Your task to perform on an android device: uninstall "Microsoft Excel" Image 0: 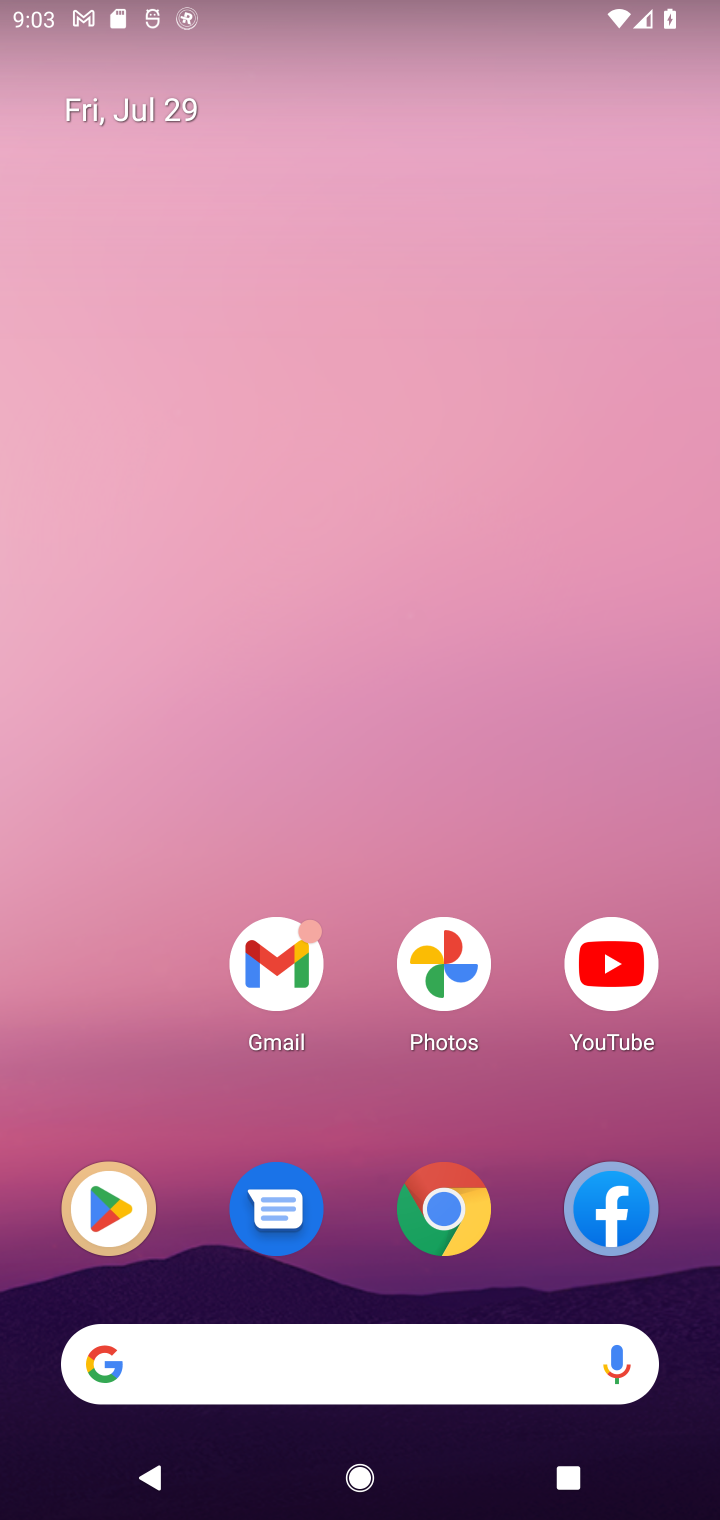
Step 0: drag from (334, 1335) to (380, 103)
Your task to perform on an android device: uninstall "Microsoft Excel" Image 1: 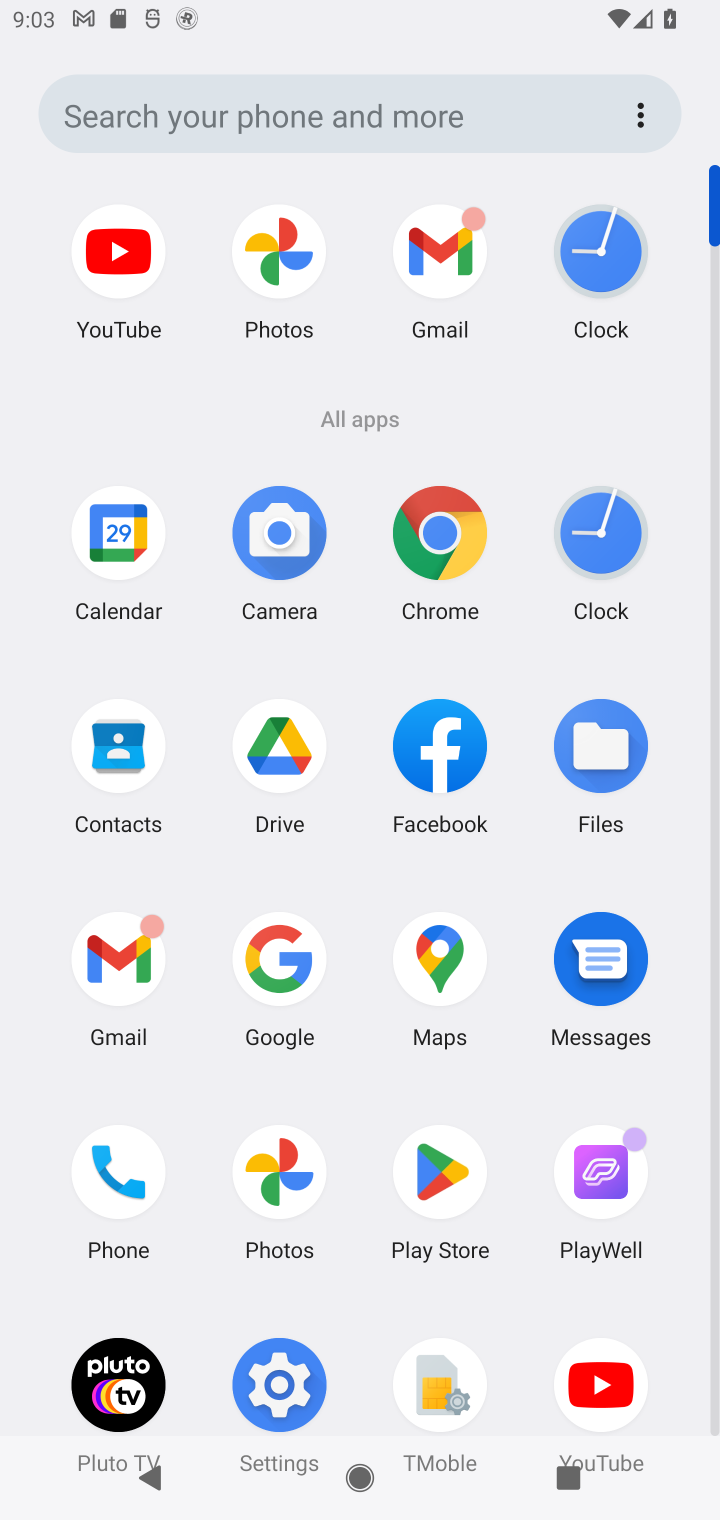
Step 1: click (440, 1172)
Your task to perform on an android device: uninstall "Microsoft Excel" Image 2: 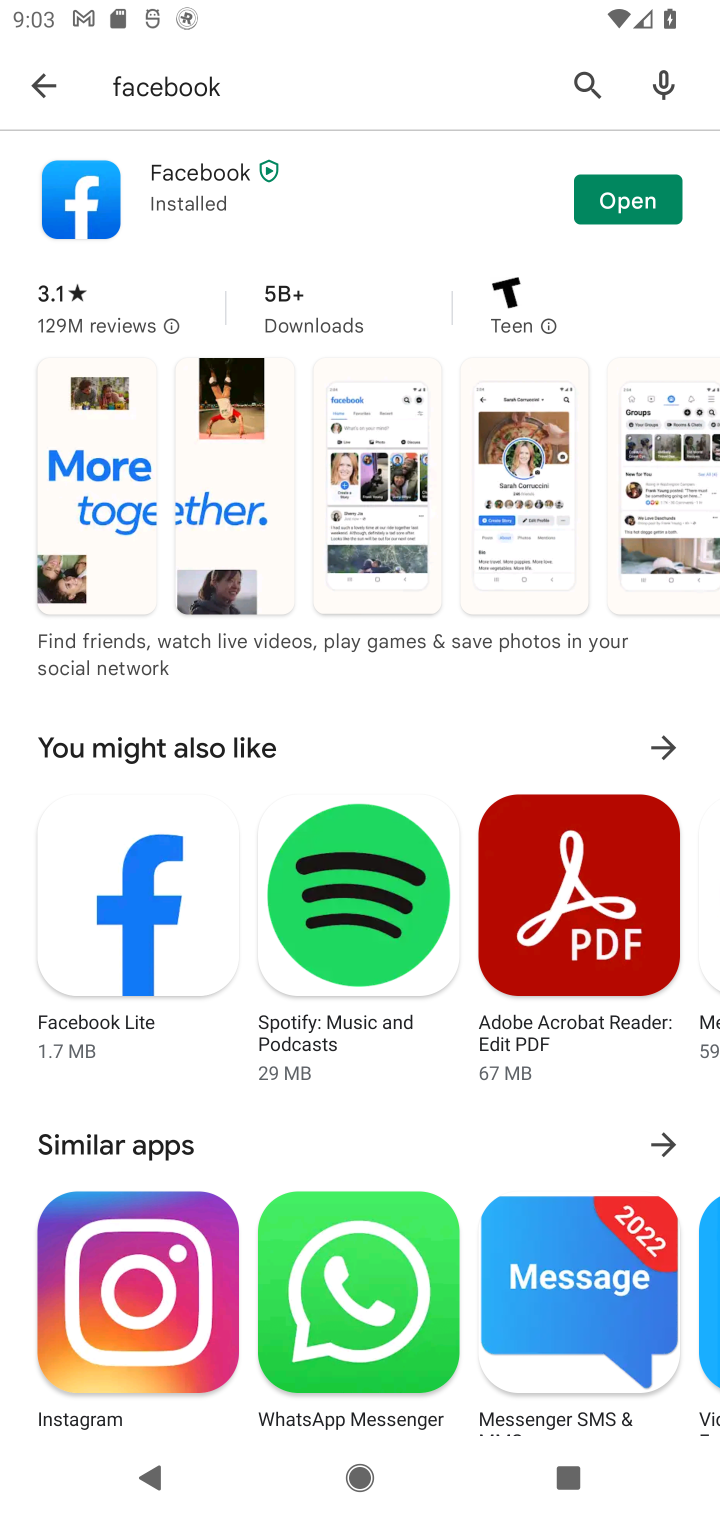
Step 2: click (583, 94)
Your task to perform on an android device: uninstall "Microsoft Excel" Image 3: 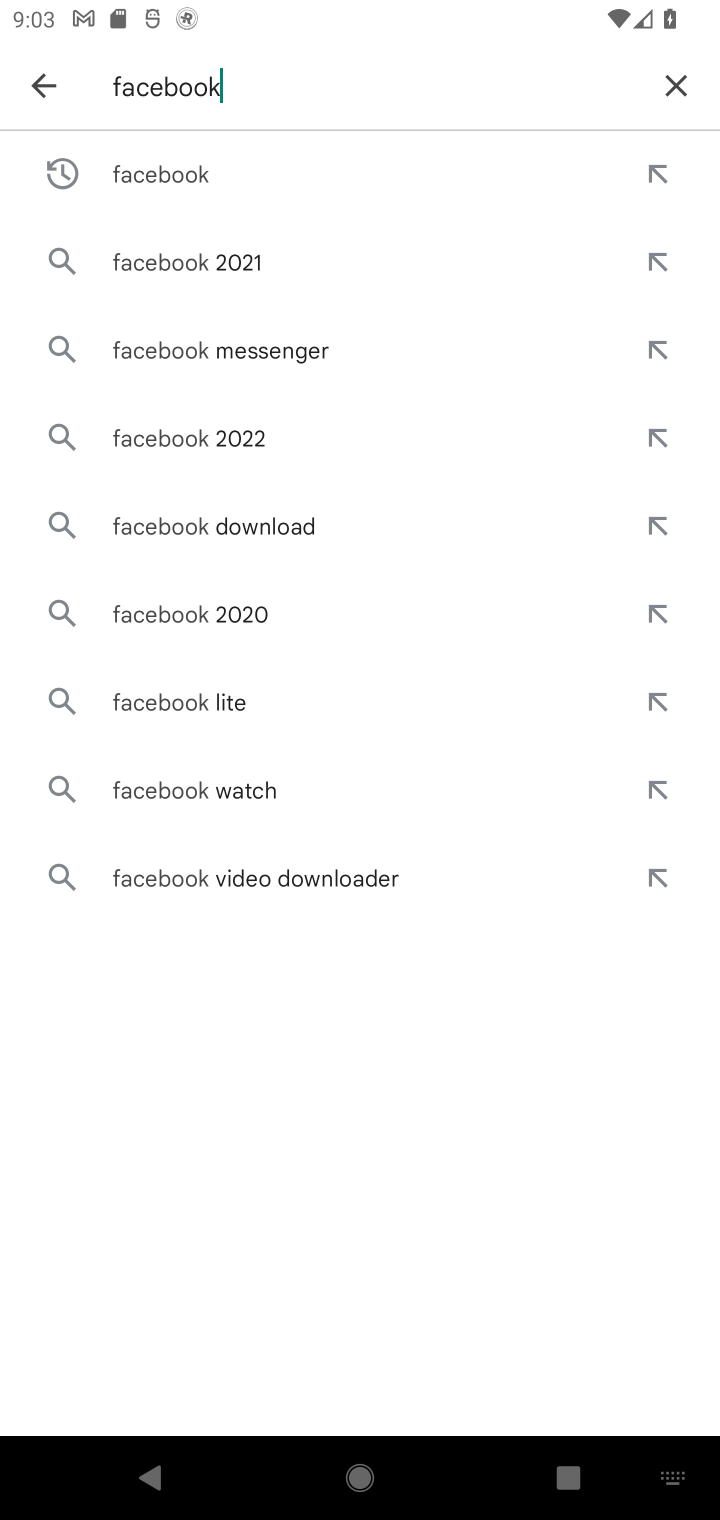
Step 3: click (672, 86)
Your task to perform on an android device: uninstall "Microsoft Excel" Image 4: 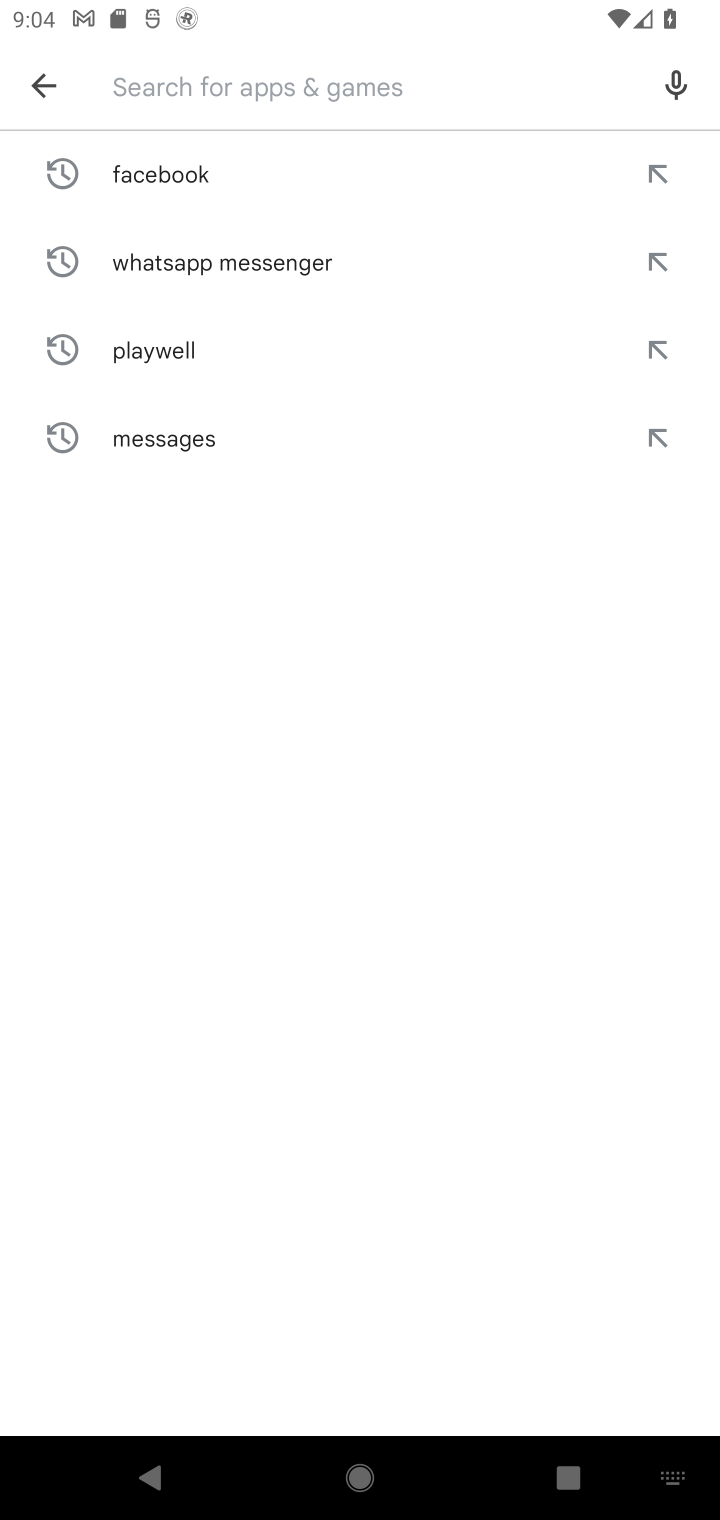
Step 4: type "Microsoft Excel"
Your task to perform on an android device: uninstall "Microsoft Excel" Image 5: 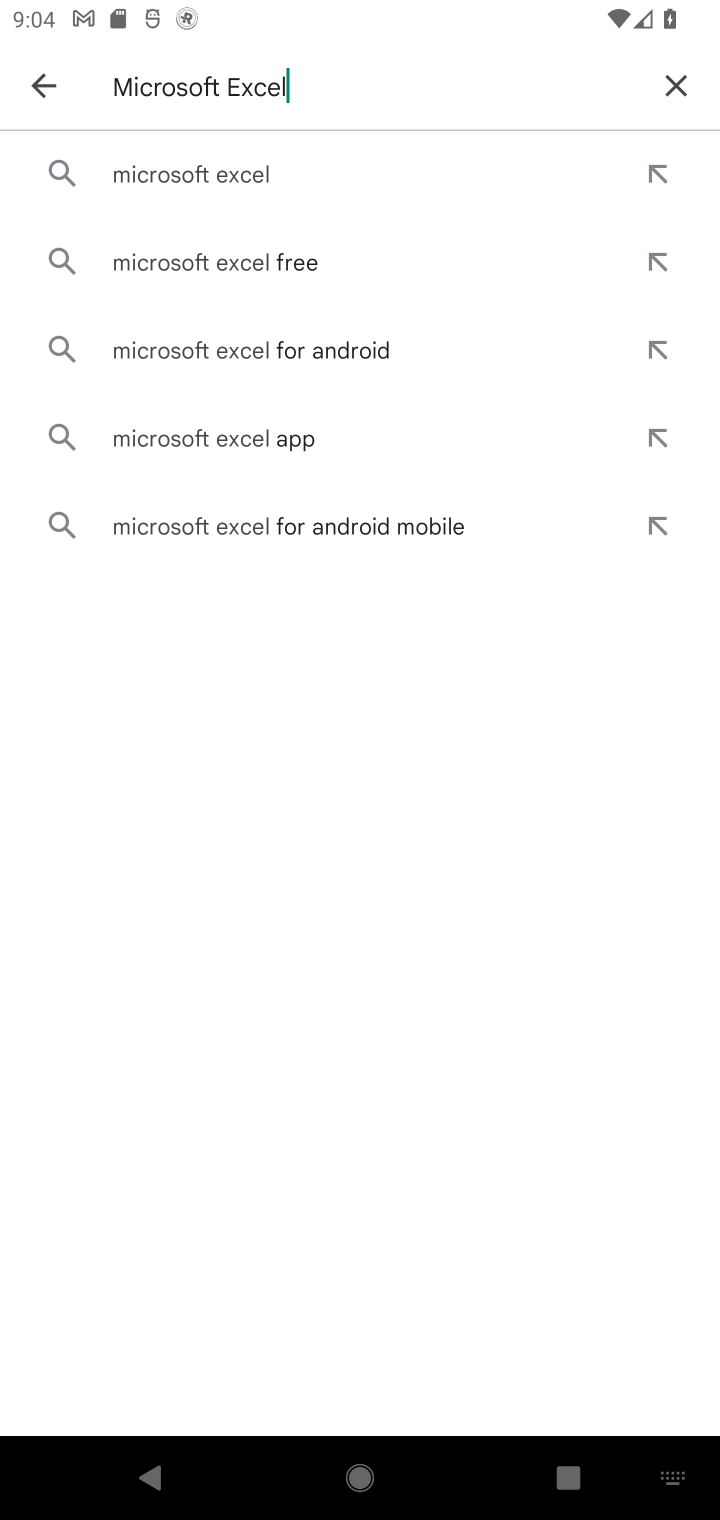
Step 5: click (202, 164)
Your task to perform on an android device: uninstall "Microsoft Excel" Image 6: 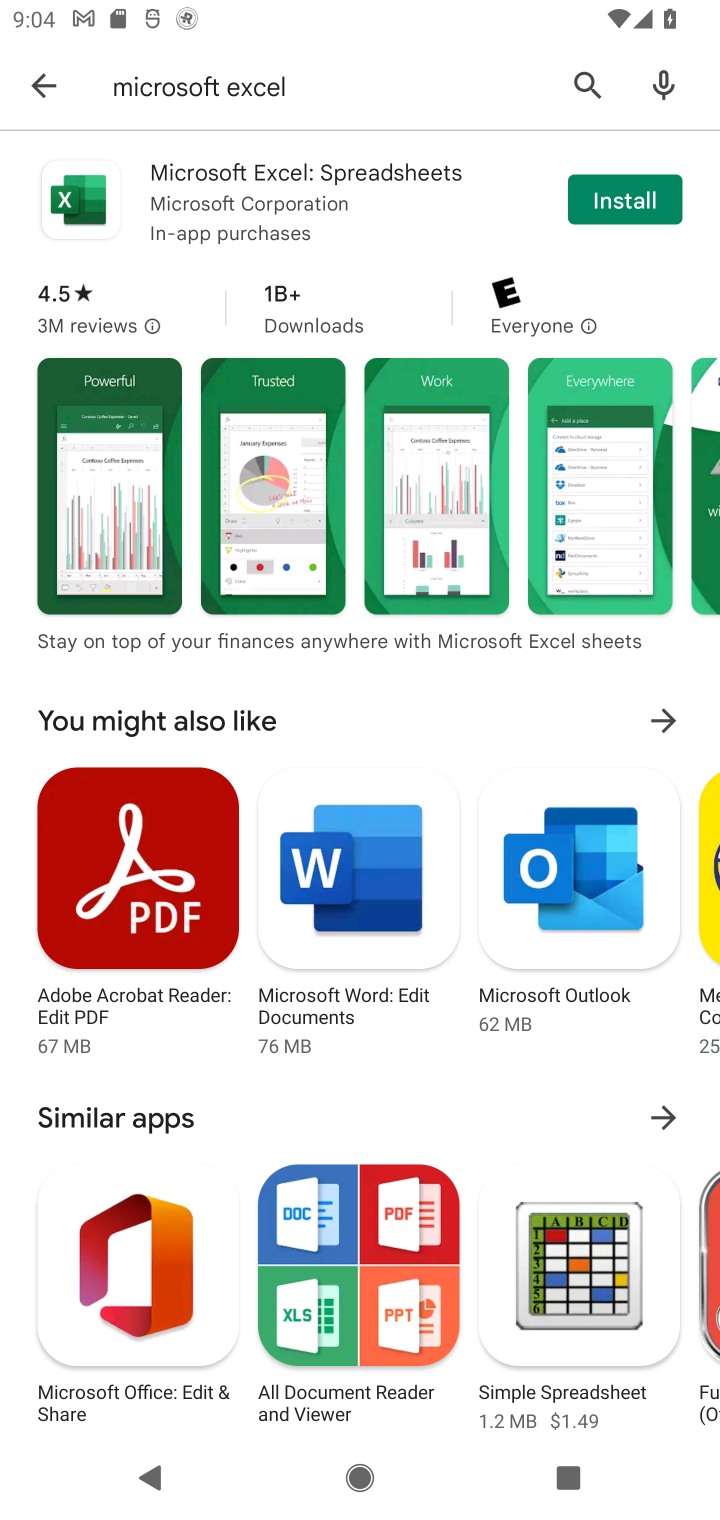
Step 6: task complete